Your task to perform on an android device: create a new album in the google photos Image 0: 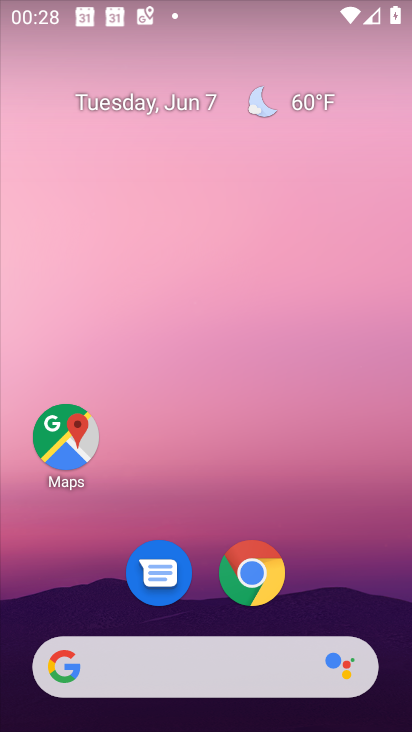
Step 0: drag from (384, 477) to (351, 65)
Your task to perform on an android device: create a new album in the google photos Image 1: 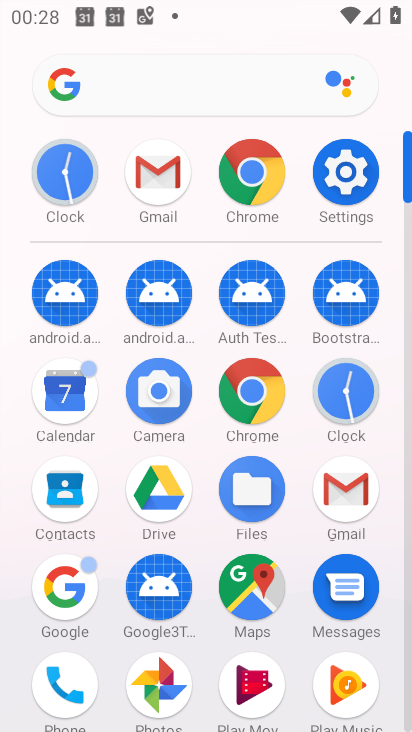
Step 1: click (161, 672)
Your task to perform on an android device: create a new album in the google photos Image 2: 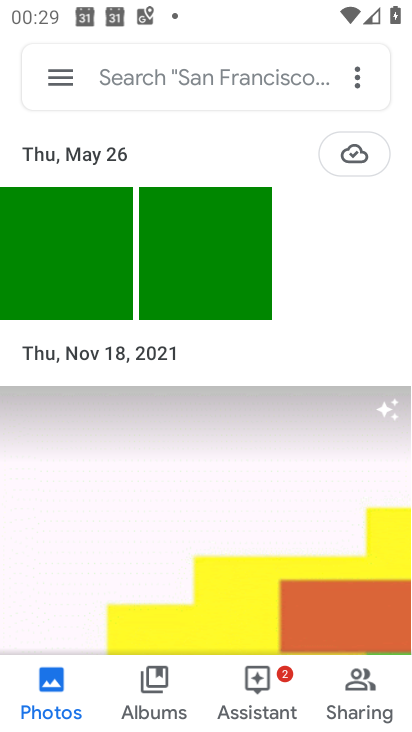
Step 2: press home button
Your task to perform on an android device: create a new album in the google photos Image 3: 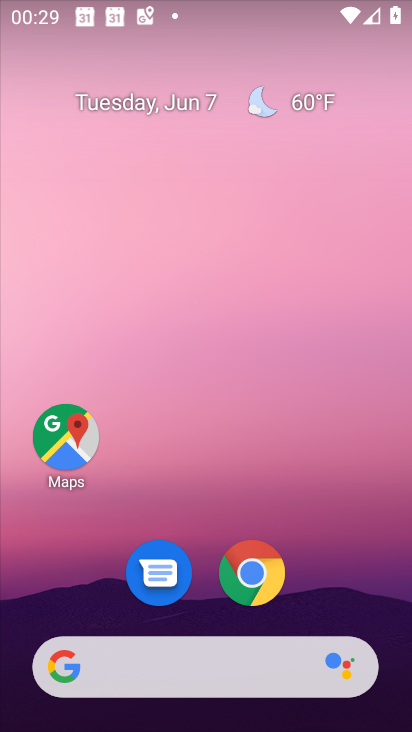
Step 3: drag from (370, 610) to (200, 3)
Your task to perform on an android device: create a new album in the google photos Image 4: 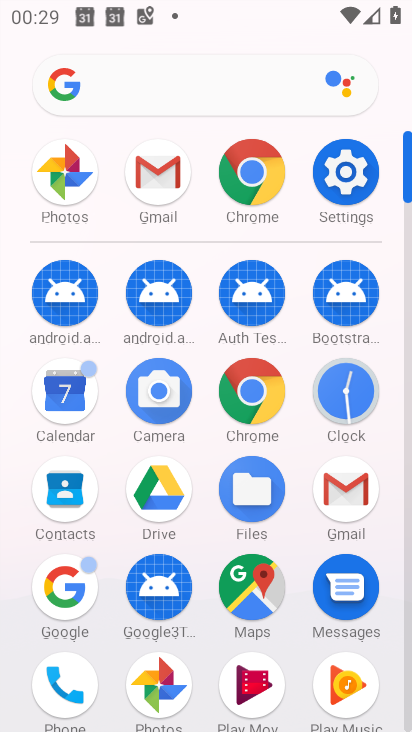
Step 4: click (168, 658)
Your task to perform on an android device: create a new album in the google photos Image 5: 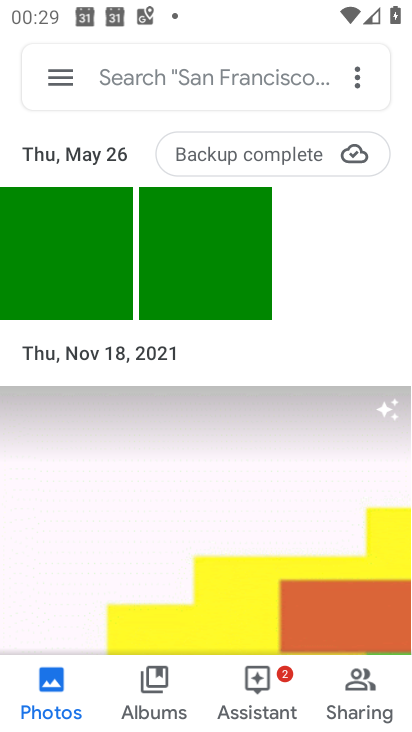
Step 5: click (170, 280)
Your task to perform on an android device: create a new album in the google photos Image 6: 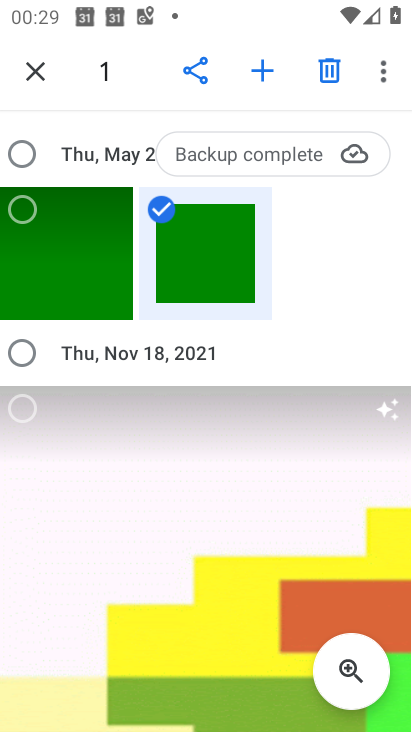
Step 6: click (134, 291)
Your task to perform on an android device: create a new album in the google photos Image 7: 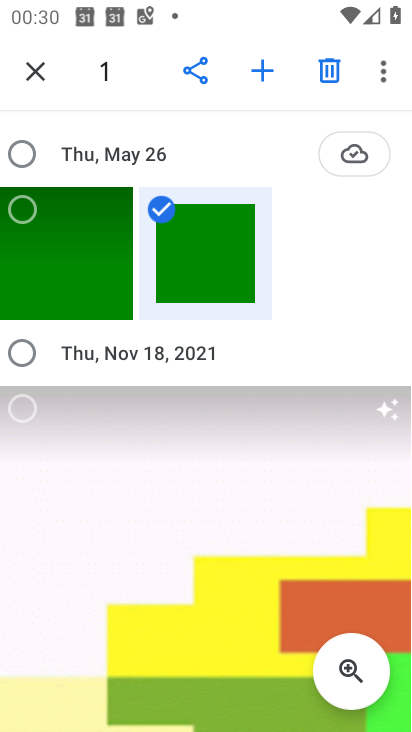
Step 7: click (13, 146)
Your task to perform on an android device: create a new album in the google photos Image 8: 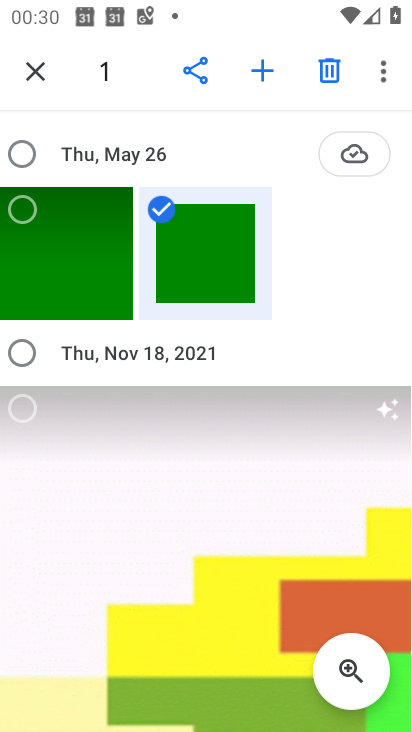
Step 8: click (246, 536)
Your task to perform on an android device: create a new album in the google photos Image 9: 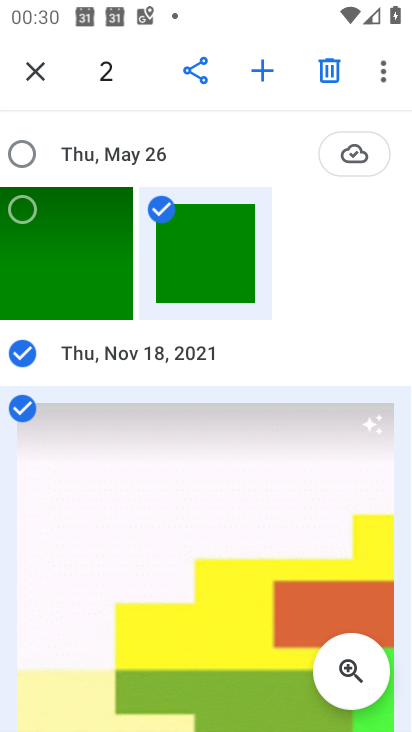
Step 9: click (266, 58)
Your task to perform on an android device: create a new album in the google photos Image 10: 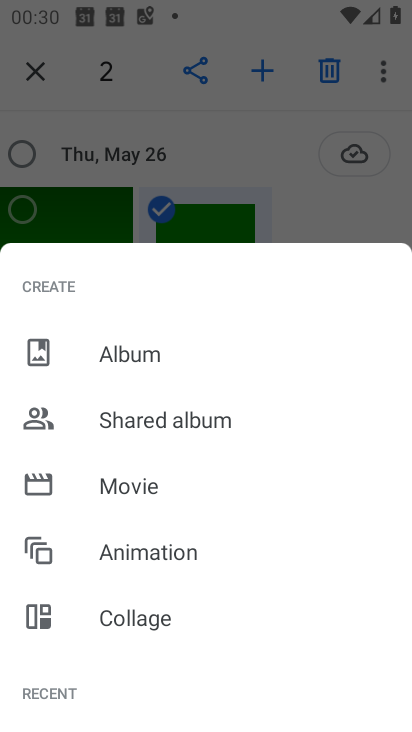
Step 10: click (140, 354)
Your task to perform on an android device: create a new album in the google photos Image 11: 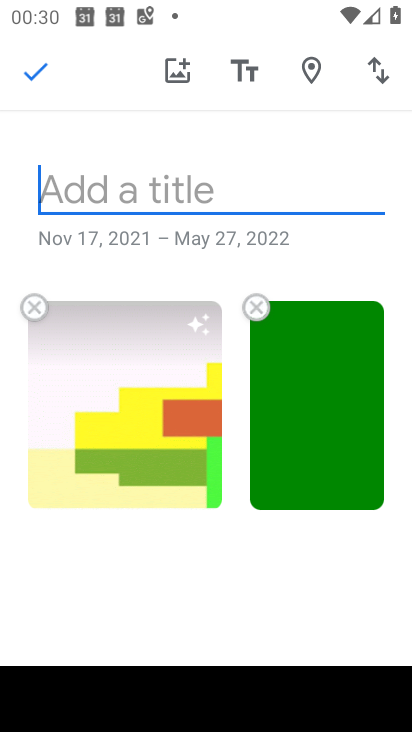
Step 11: type "mkhut'k"
Your task to perform on an android device: create a new album in the google photos Image 12: 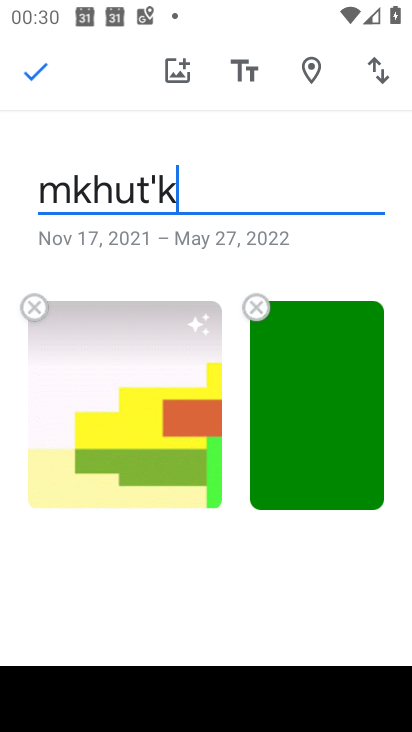
Step 12: click (47, 74)
Your task to perform on an android device: create a new album in the google photos Image 13: 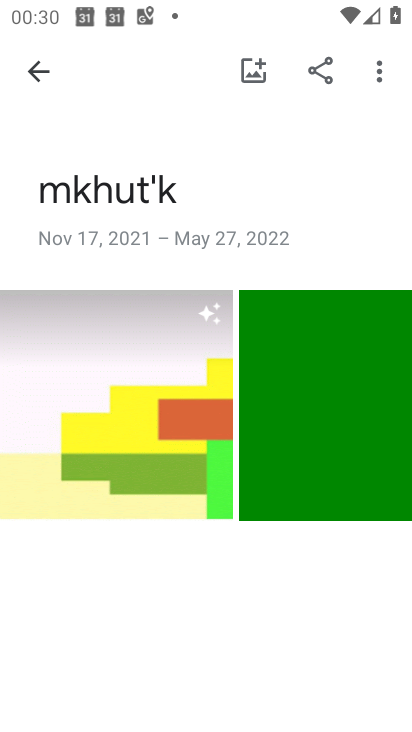
Step 13: task complete